Your task to perform on an android device: Go to Reddit.com Image 0: 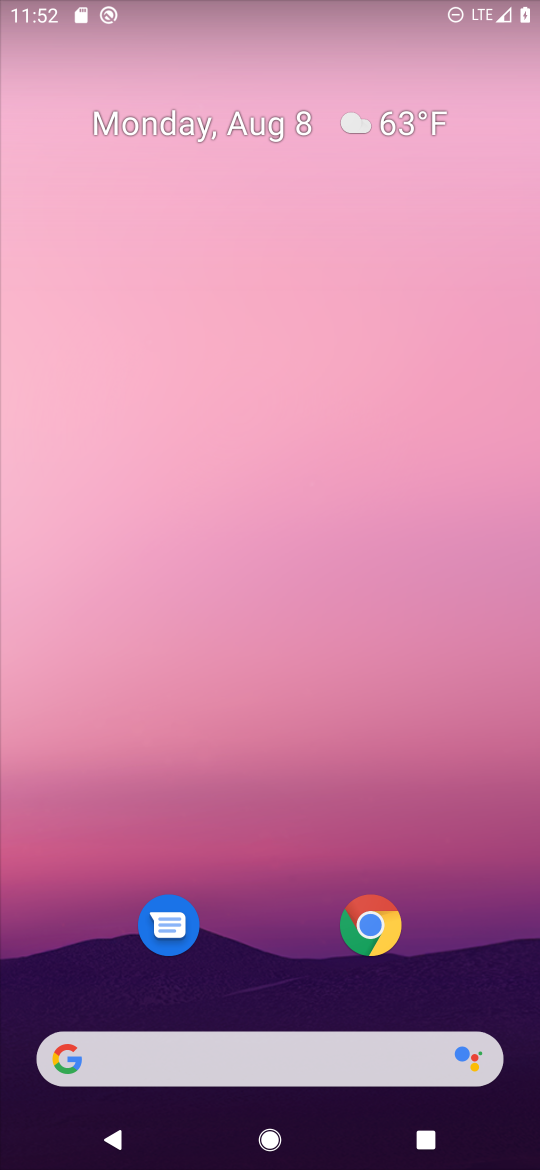
Step 0: drag from (283, 911) to (328, 0)
Your task to perform on an android device: Go to Reddit.com Image 1: 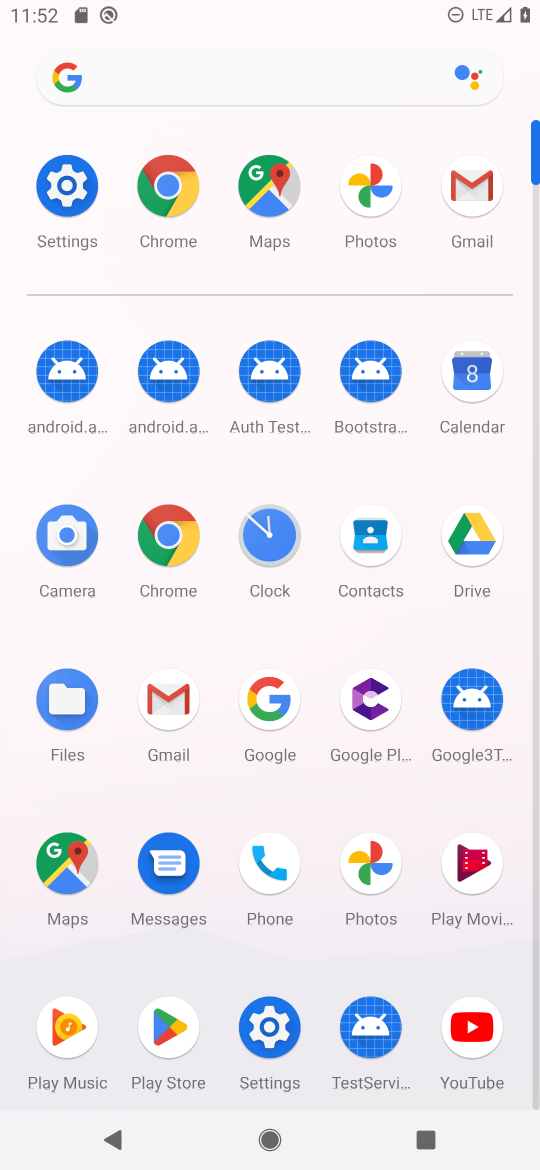
Step 1: click (174, 540)
Your task to perform on an android device: Go to Reddit.com Image 2: 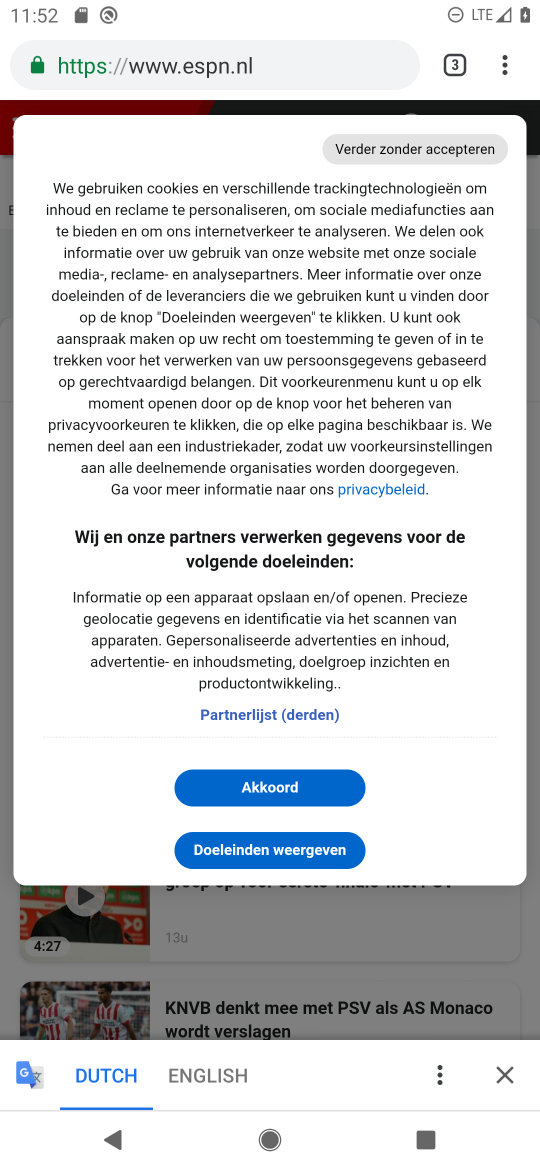
Step 2: click (244, 75)
Your task to perform on an android device: Go to Reddit.com Image 3: 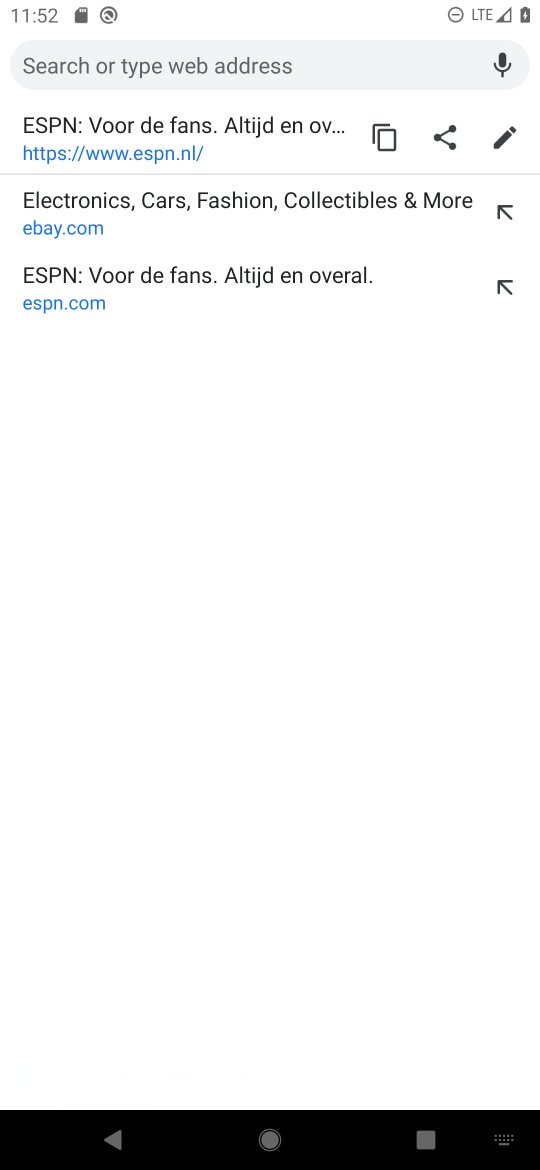
Step 3: type "reddit.com"
Your task to perform on an android device: Go to Reddit.com Image 4: 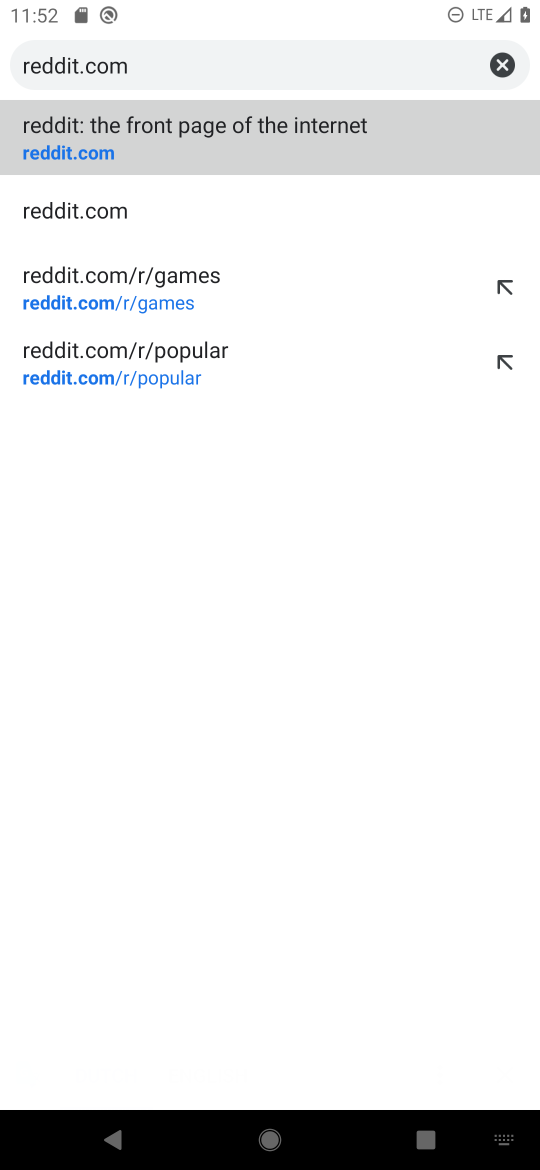
Step 4: click (139, 153)
Your task to perform on an android device: Go to Reddit.com Image 5: 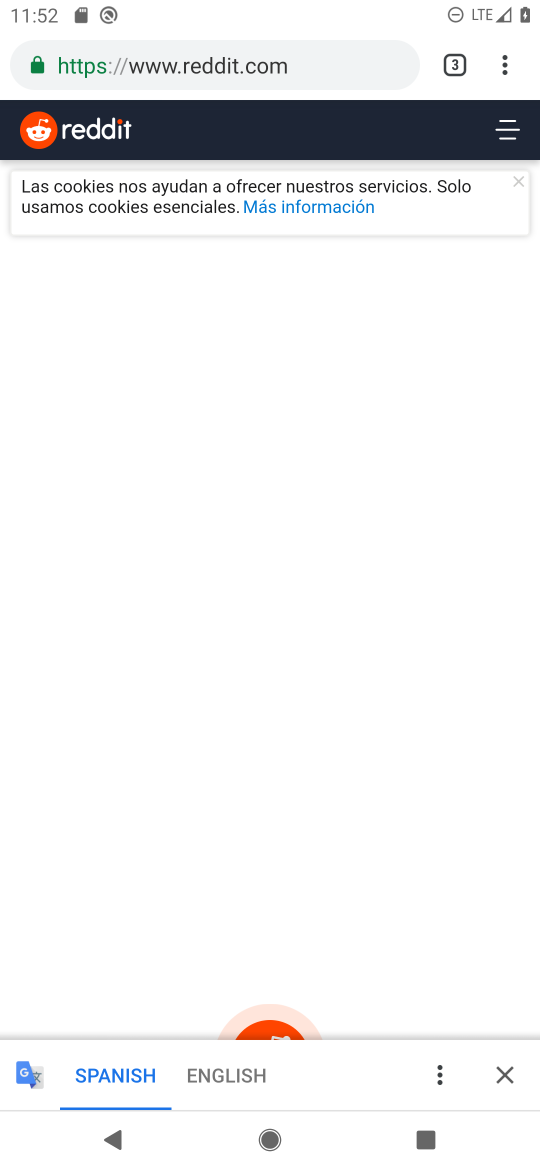
Step 5: task complete